Your task to perform on an android device: Go to Google Image 0: 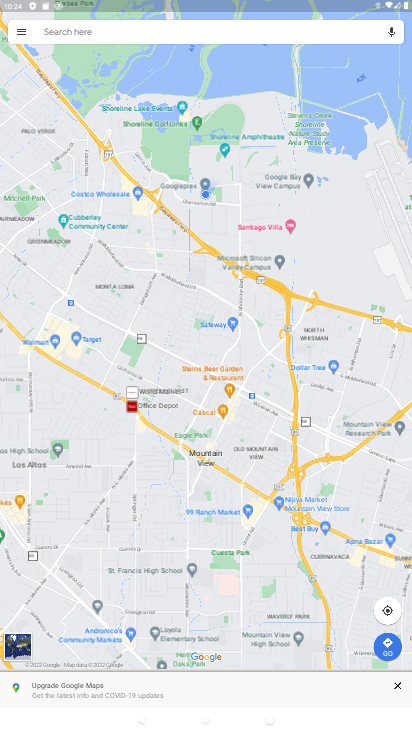
Step 0: press home button
Your task to perform on an android device: Go to Google Image 1: 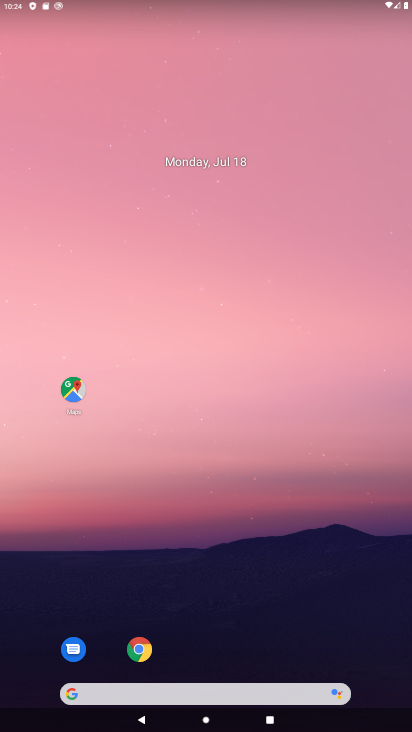
Step 1: drag from (202, 578) to (174, 62)
Your task to perform on an android device: Go to Google Image 2: 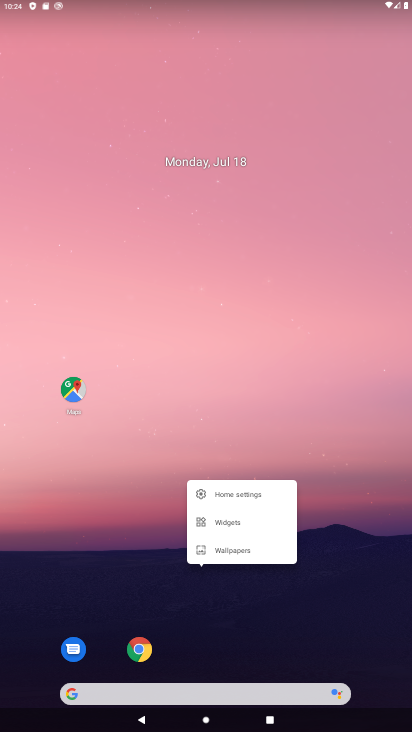
Step 2: click (146, 529)
Your task to perform on an android device: Go to Google Image 3: 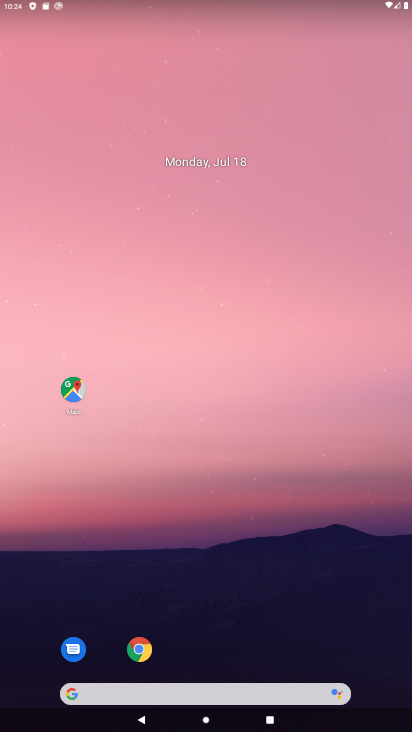
Step 3: click (75, 695)
Your task to perform on an android device: Go to Google Image 4: 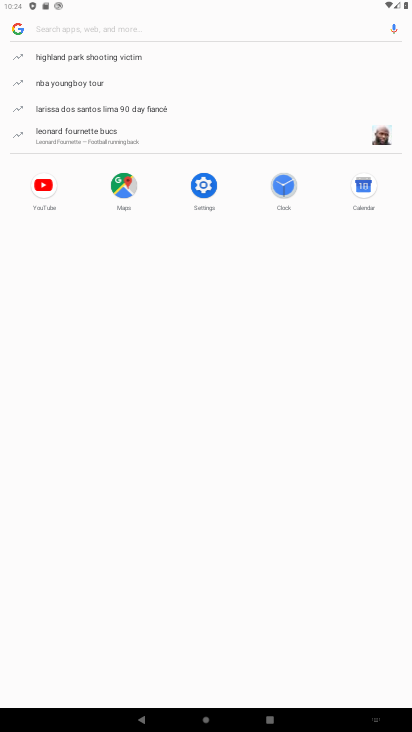
Step 4: click (14, 27)
Your task to perform on an android device: Go to Google Image 5: 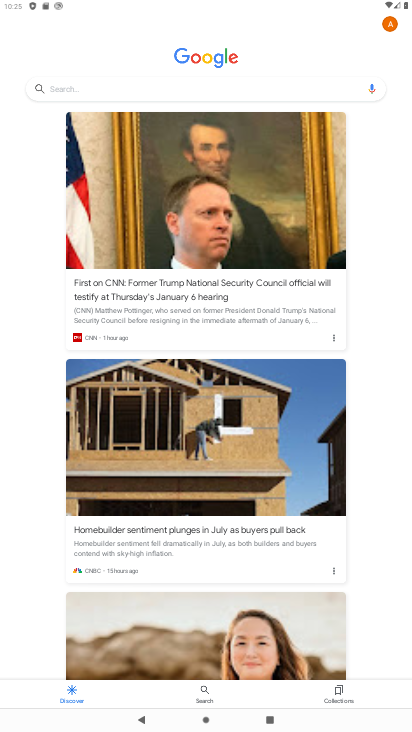
Step 5: task complete